Your task to perform on an android device: toggle improve location accuracy Image 0: 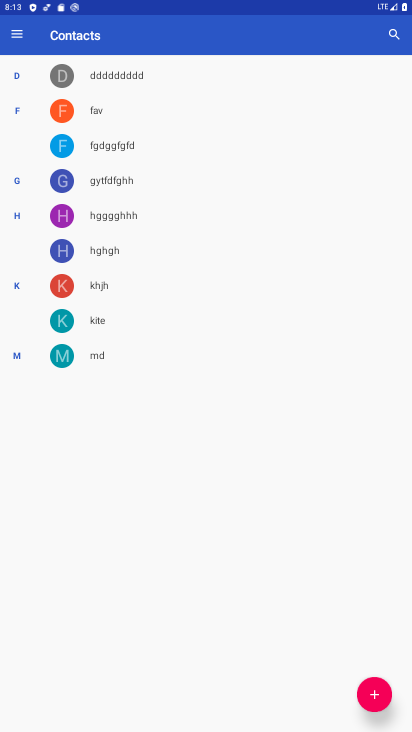
Step 0: press home button
Your task to perform on an android device: toggle improve location accuracy Image 1: 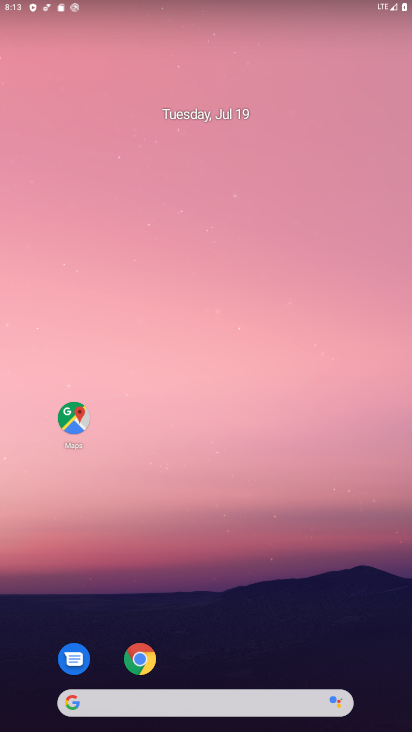
Step 1: drag from (257, 615) to (291, 47)
Your task to perform on an android device: toggle improve location accuracy Image 2: 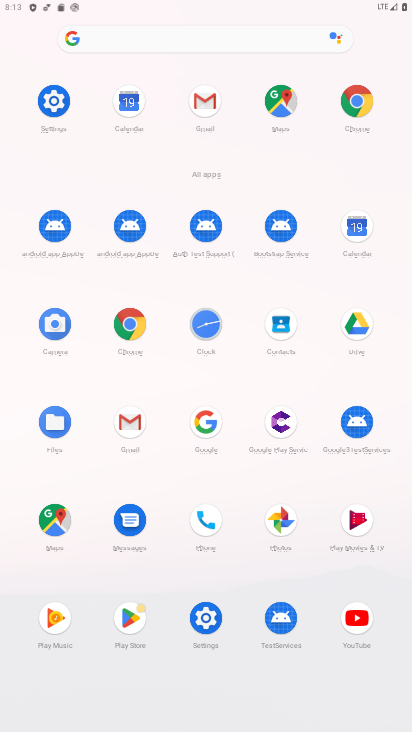
Step 2: click (56, 110)
Your task to perform on an android device: toggle improve location accuracy Image 3: 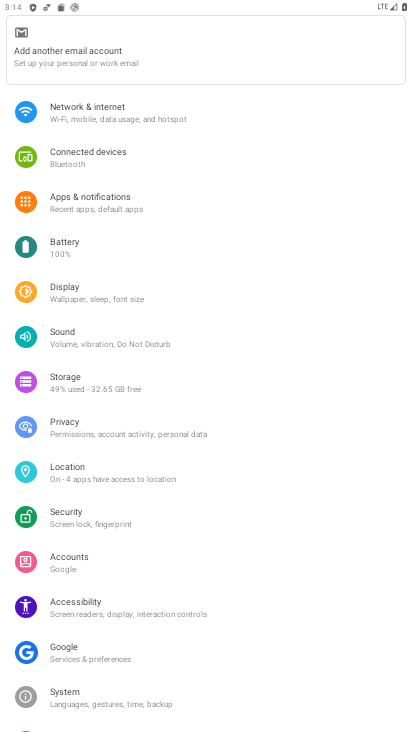
Step 3: click (69, 458)
Your task to perform on an android device: toggle improve location accuracy Image 4: 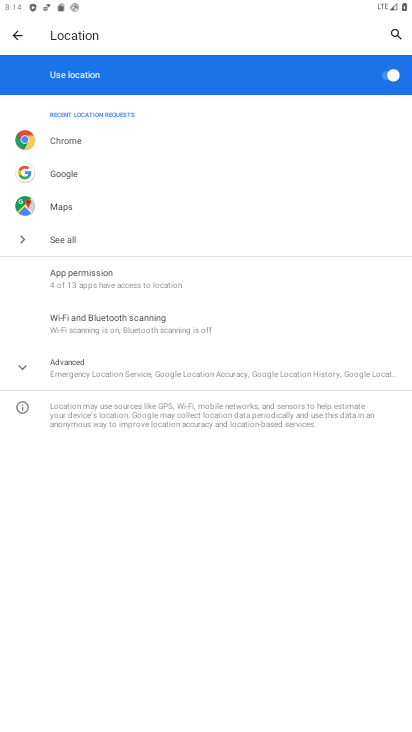
Step 4: click (108, 364)
Your task to perform on an android device: toggle improve location accuracy Image 5: 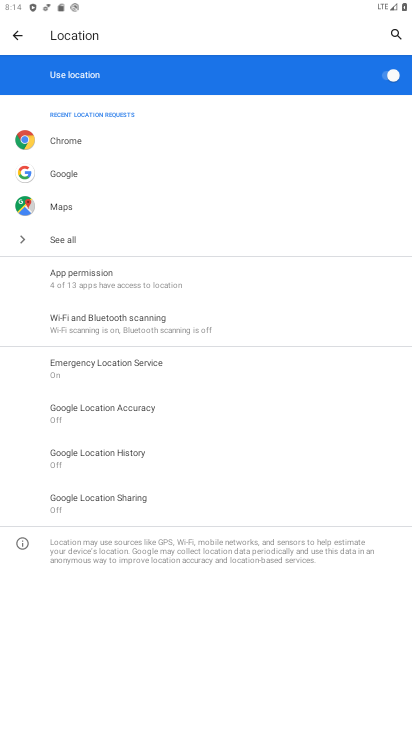
Step 5: click (106, 408)
Your task to perform on an android device: toggle improve location accuracy Image 6: 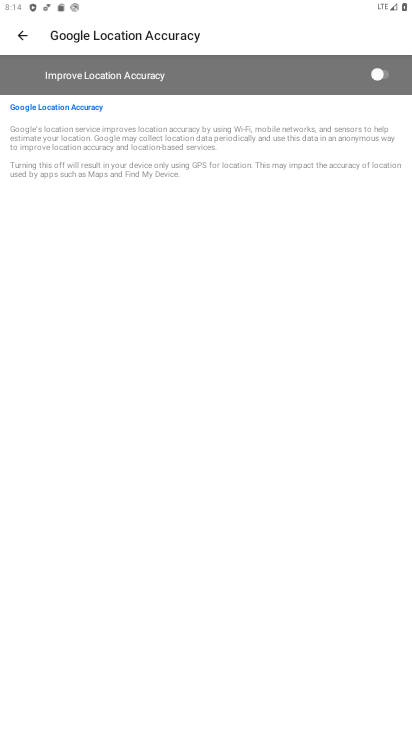
Step 6: click (245, 89)
Your task to perform on an android device: toggle improve location accuracy Image 7: 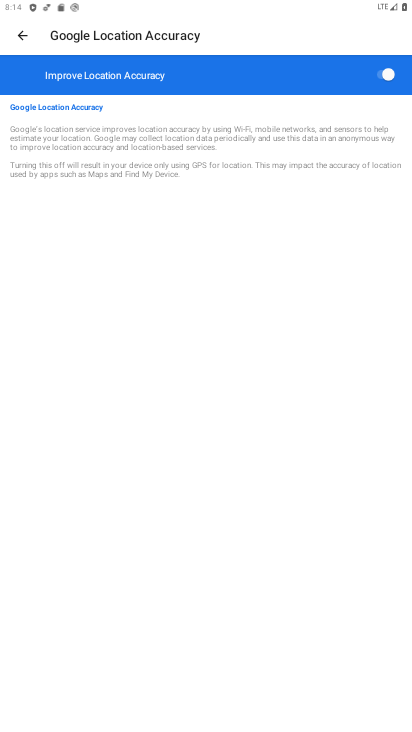
Step 7: task complete